Your task to perform on an android device: toggle javascript in the chrome app Image 0: 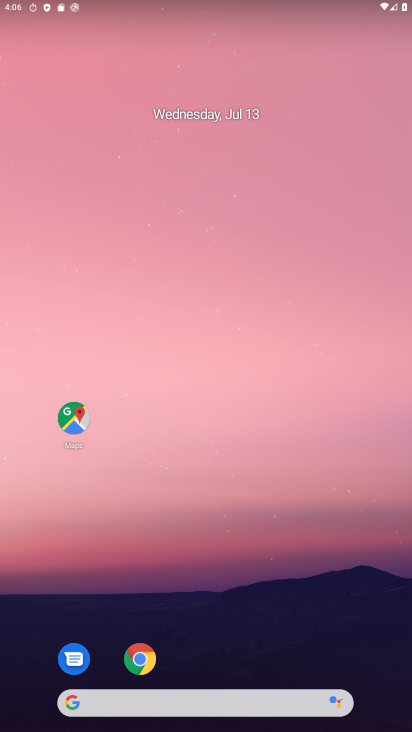
Step 0: drag from (228, 674) to (347, 49)
Your task to perform on an android device: toggle javascript in the chrome app Image 1: 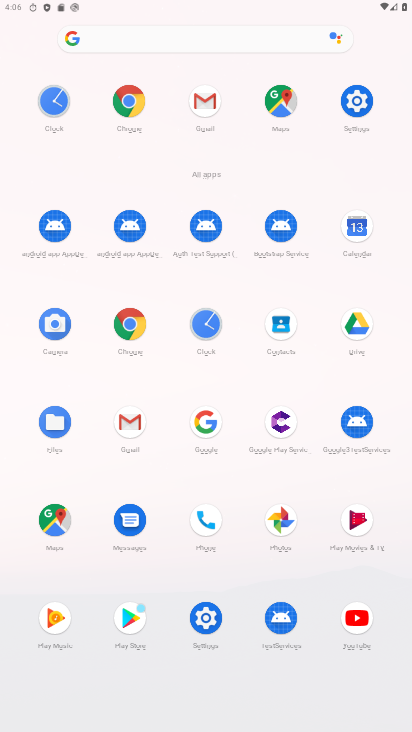
Step 1: click (123, 331)
Your task to perform on an android device: toggle javascript in the chrome app Image 2: 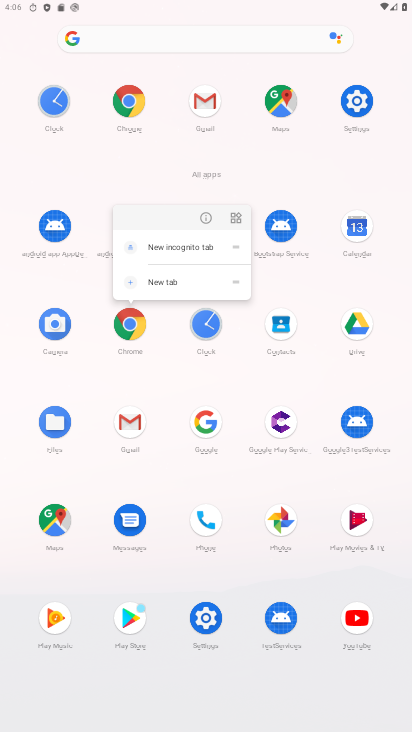
Step 2: click (126, 330)
Your task to perform on an android device: toggle javascript in the chrome app Image 3: 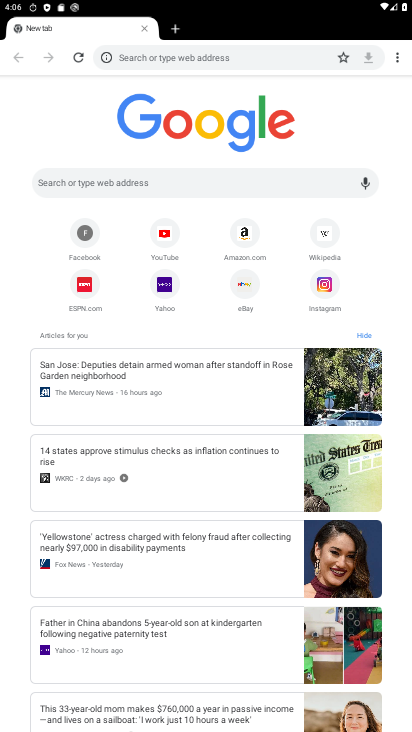
Step 3: drag from (398, 58) to (318, 257)
Your task to perform on an android device: toggle javascript in the chrome app Image 4: 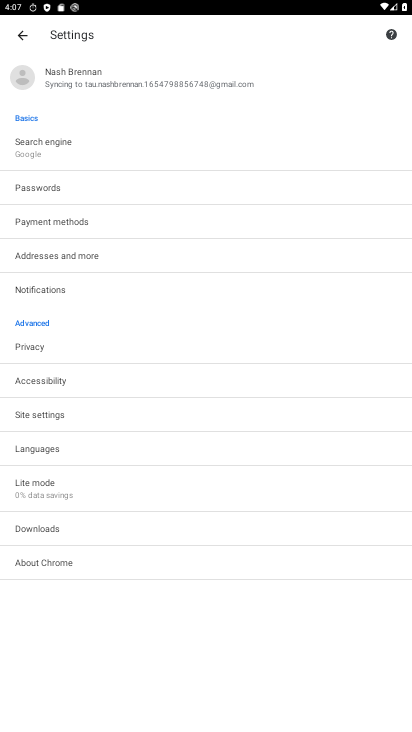
Step 4: click (84, 421)
Your task to perform on an android device: toggle javascript in the chrome app Image 5: 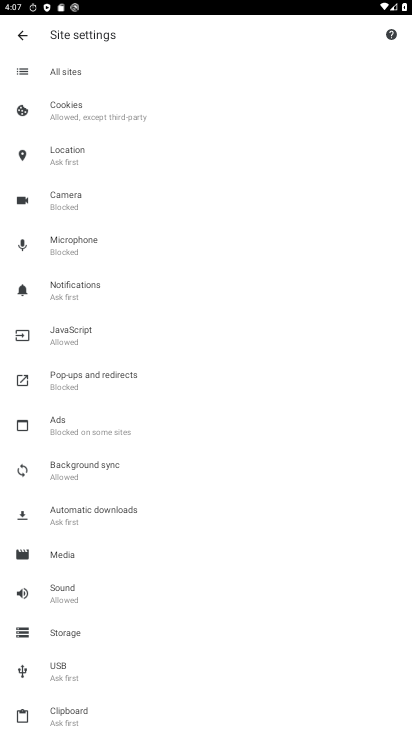
Step 5: click (108, 334)
Your task to perform on an android device: toggle javascript in the chrome app Image 6: 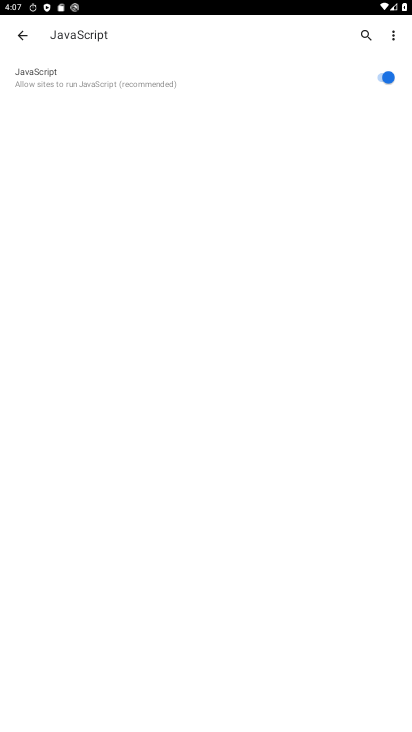
Step 6: click (377, 79)
Your task to perform on an android device: toggle javascript in the chrome app Image 7: 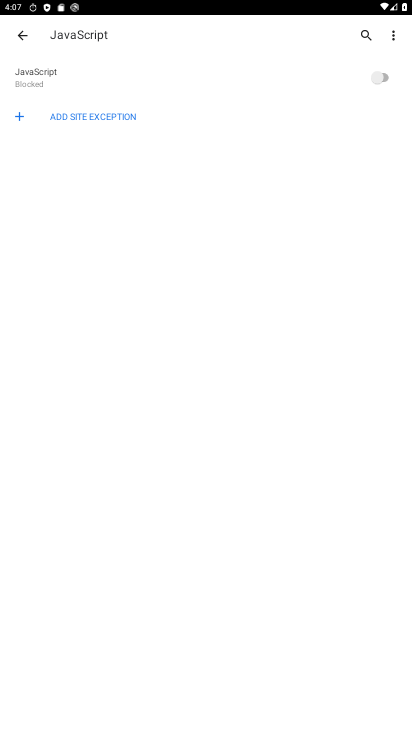
Step 7: task complete